Your task to perform on an android device: change the upload size in google photos Image 0: 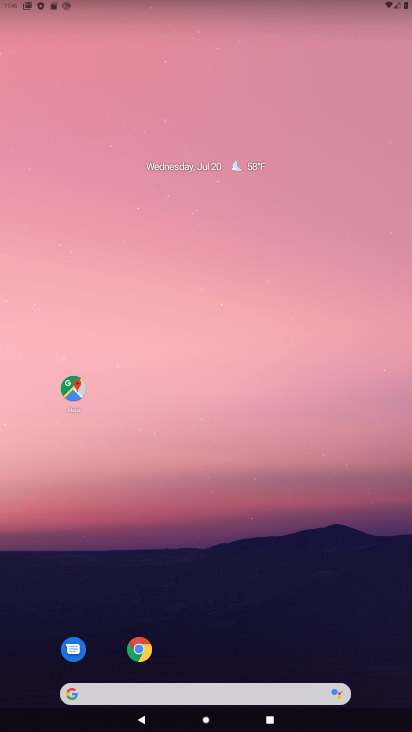
Step 0: drag from (180, 562) to (262, 104)
Your task to perform on an android device: change the upload size in google photos Image 1: 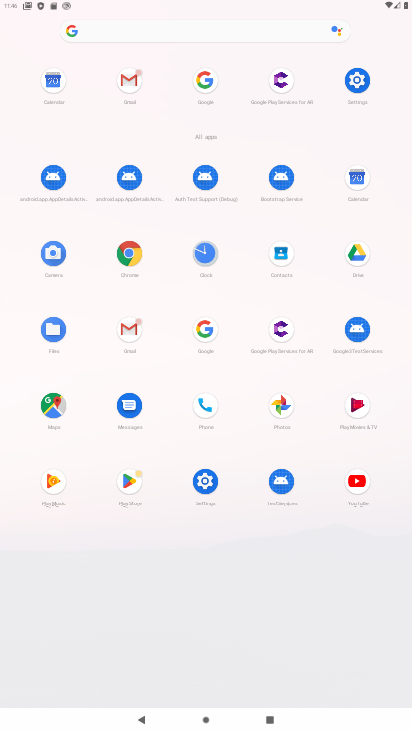
Step 1: click (280, 405)
Your task to perform on an android device: change the upload size in google photos Image 2: 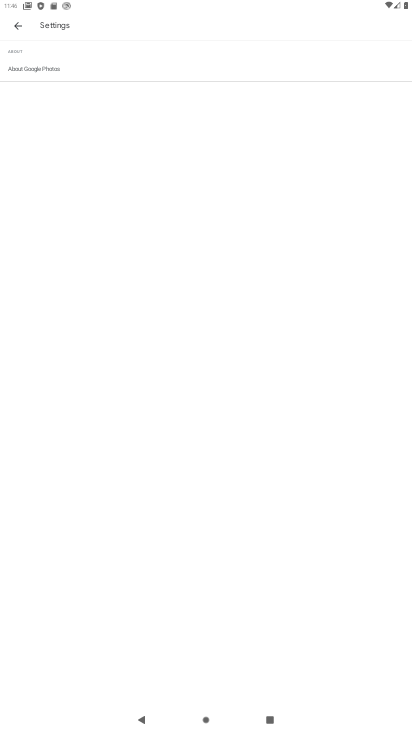
Step 2: press back button
Your task to perform on an android device: change the upload size in google photos Image 3: 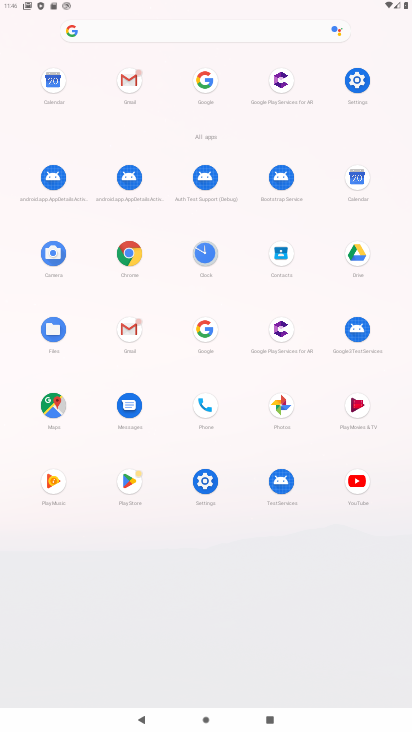
Step 3: click (279, 404)
Your task to perform on an android device: change the upload size in google photos Image 4: 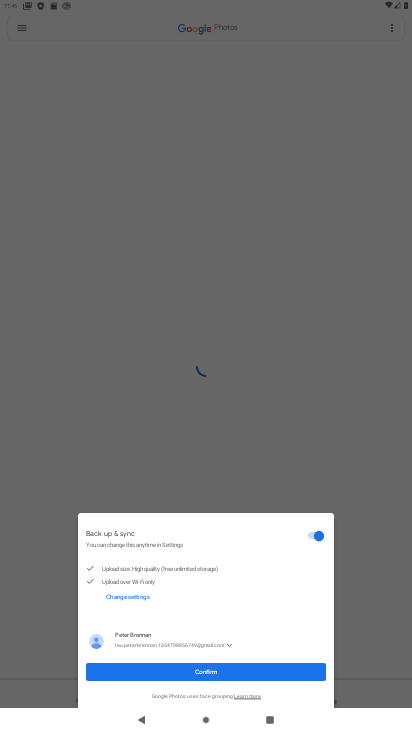
Step 4: click (199, 664)
Your task to perform on an android device: change the upload size in google photos Image 5: 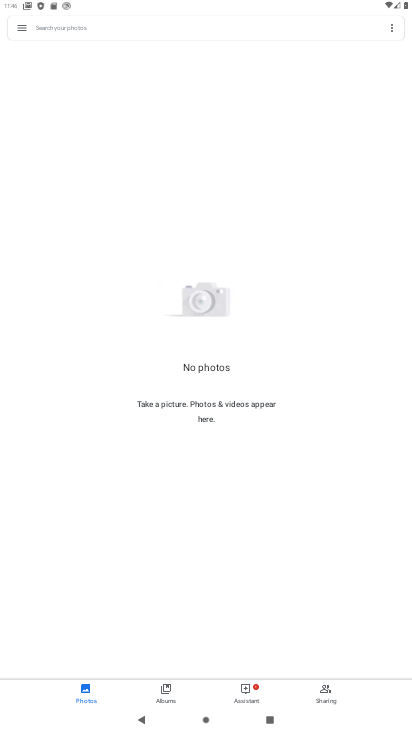
Step 5: click (22, 29)
Your task to perform on an android device: change the upload size in google photos Image 6: 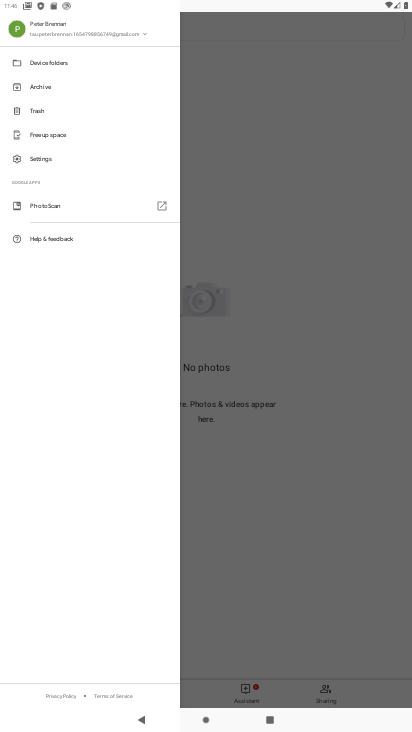
Step 6: click (49, 158)
Your task to perform on an android device: change the upload size in google photos Image 7: 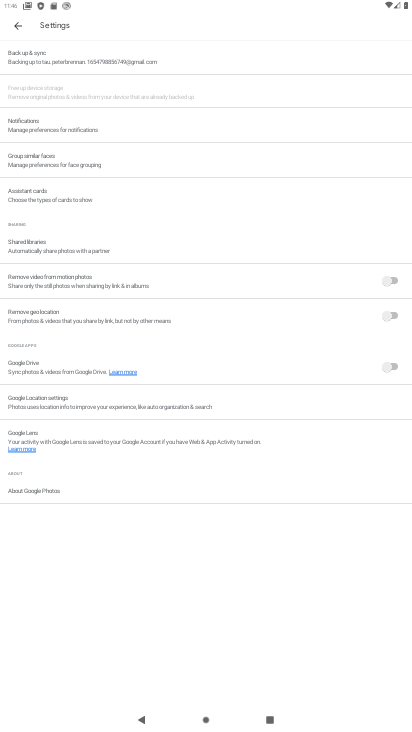
Step 7: click (66, 54)
Your task to perform on an android device: change the upload size in google photos Image 8: 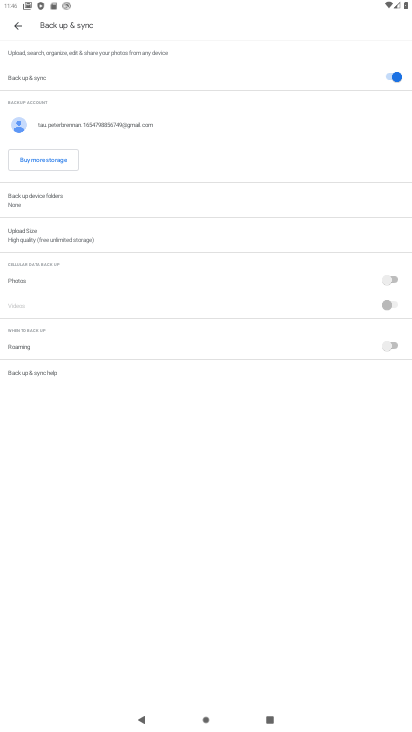
Step 8: click (39, 235)
Your task to perform on an android device: change the upload size in google photos Image 9: 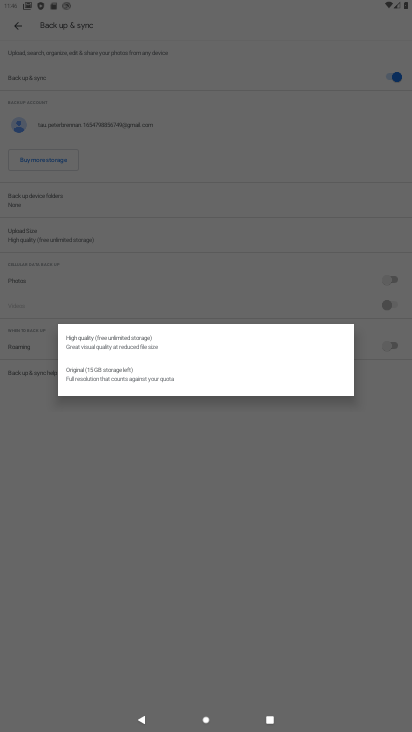
Step 9: click (104, 369)
Your task to perform on an android device: change the upload size in google photos Image 10: 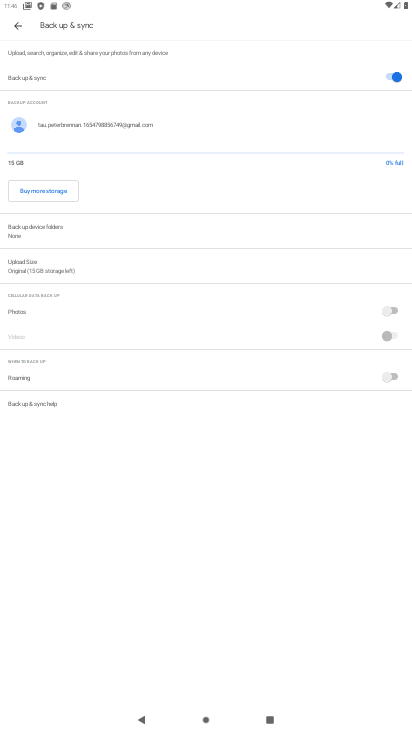
Step 10: task complete